Your task to perform on an android device: Open calendar and show me the first week of next month Image 0: 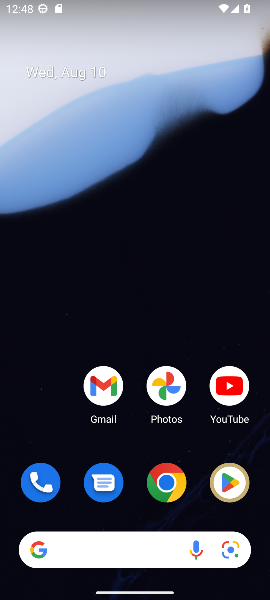
Step 0: drag from (66, 429) to (107, 91)
Your task to perform on an android device: Open calendar and show me the first week of next month Image 1: 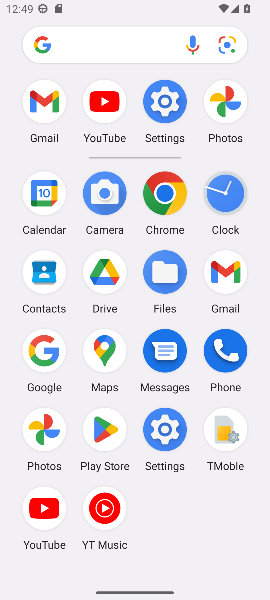
Step 1: click (46, 207)
Your task to perform on an android device: Open calendar and show me the first week of next month Image 2: 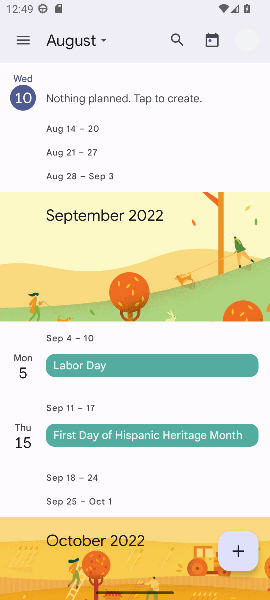
Step 2: task complete